Your task to perform on an android device: Do I have any events today? Image 0: 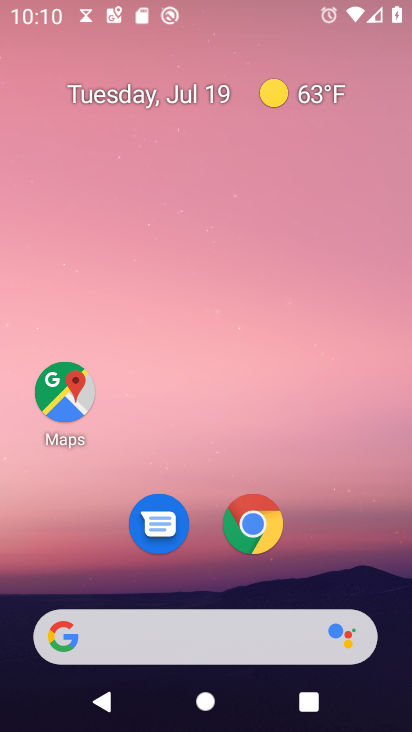
Step 0: drag from (172, 643) to (354, 122)
Your task to perform on an android device: Do I have any events today? Image 1: 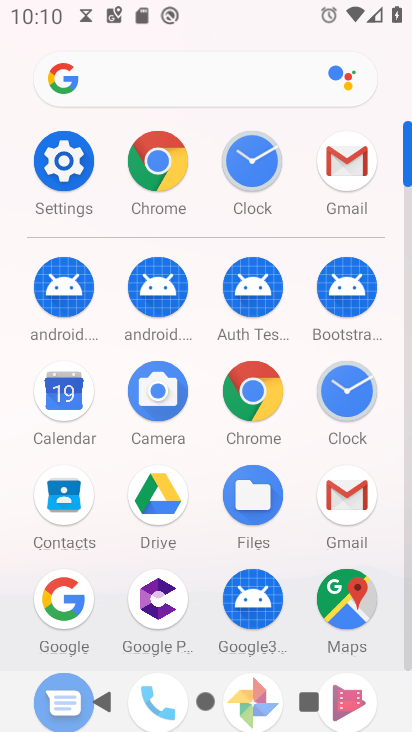
Step 1: click (74, 404)
Your task to perform on an android device: Do I have any events today? Image 2: 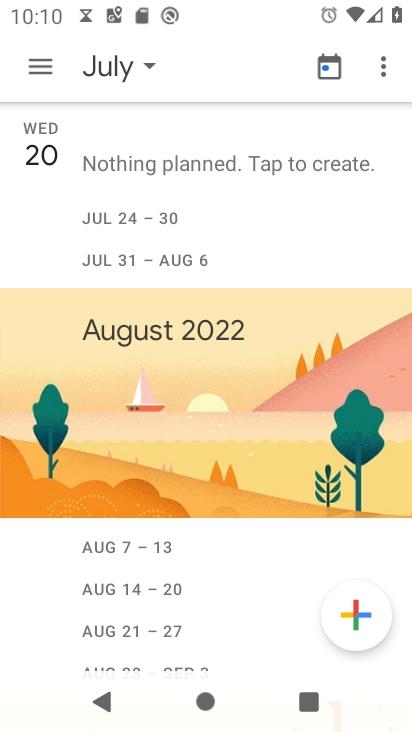
Step 2: click (100, 62)
Your task to perform on an android device: Do I have any events today? Image 3: 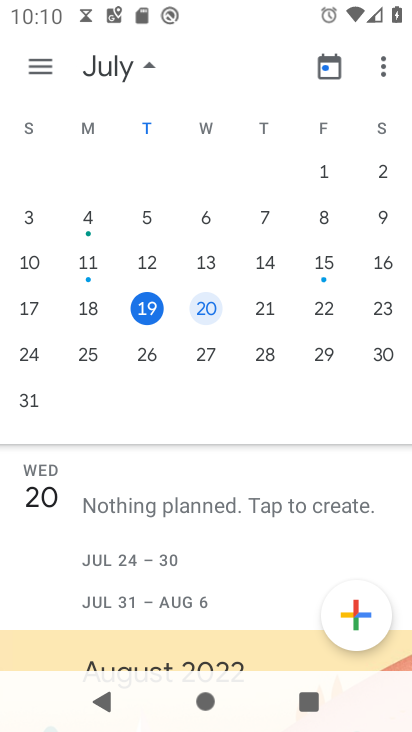
Step 3: click (149, 307)
Your task to perform on an android device: Do I have any events today? Image 4: 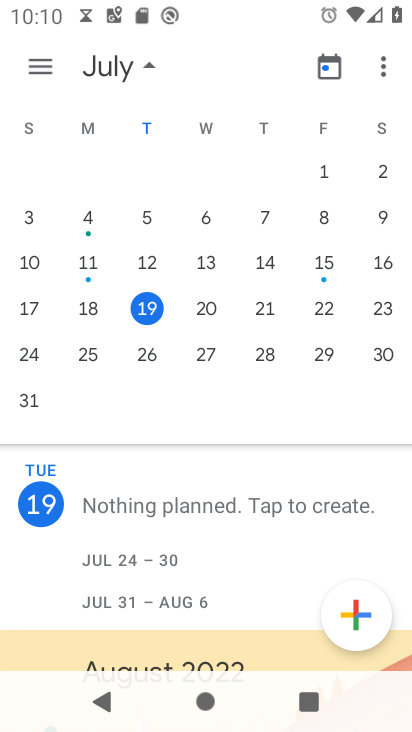
Step 4: click (55, 70)
Your task to perform on an android device: Do I have any events today? Image 5: 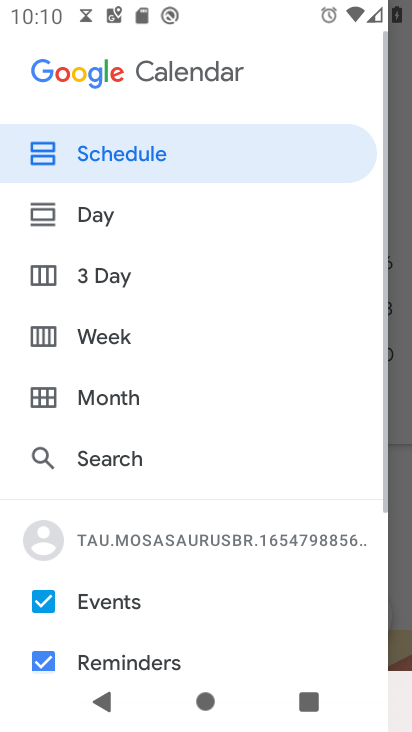
Step 5: click (122, 157)
Your task to perform on an android device: Do I have any events today? Image 6: 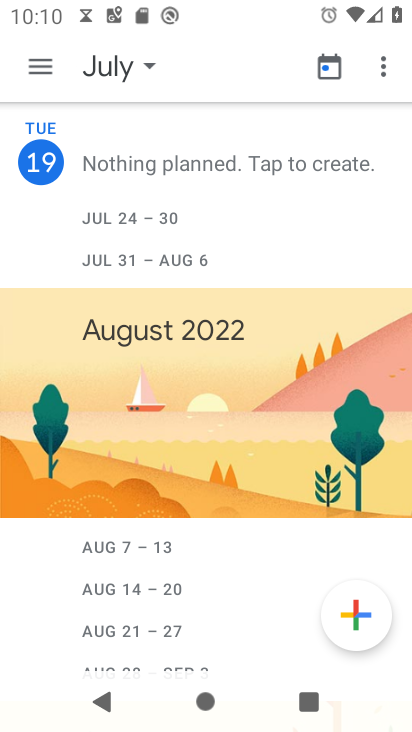
Step 6: task complete